Your task to perform on an android device: see tabs open on other devices in the chrome app Image 0: 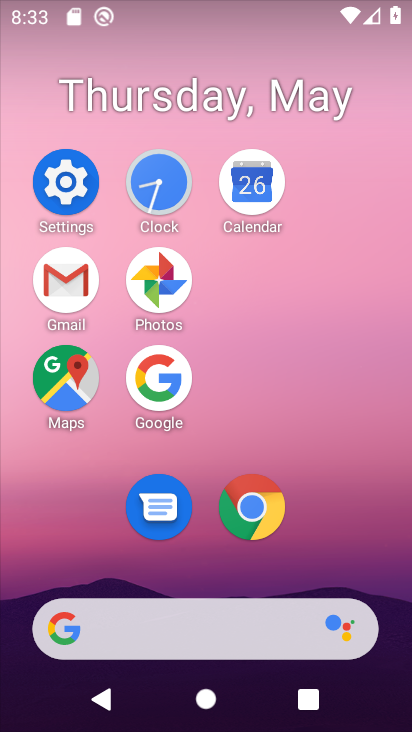
Step 0: click (268, 519)
Your task to perform on an android device: see tabs open on other devices in the chrome app Image 1: 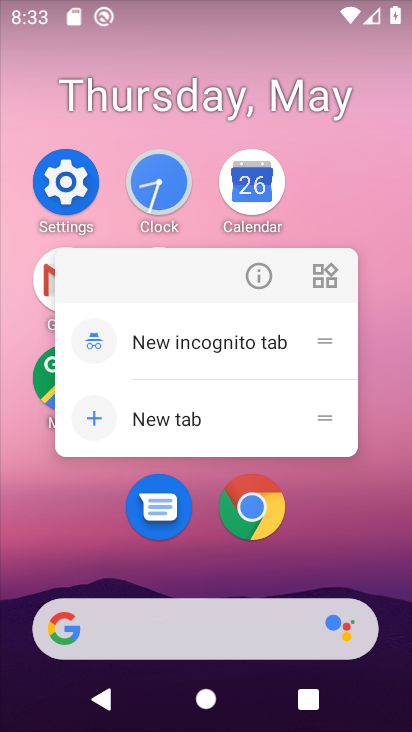
Step 1: click (266, 507)
Your task to perform on an android device: see tabs open on other devices in the chrome app Image 2: 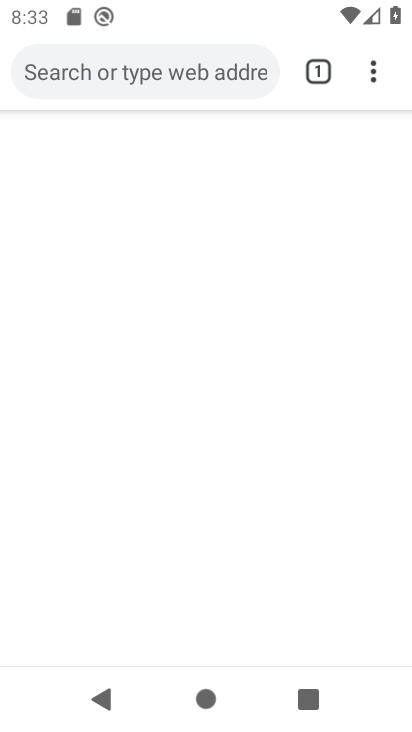
Step 2: click (382, 73)
Your task to perform on an android device: see tabs open on other devices in the chrome app Image 3: 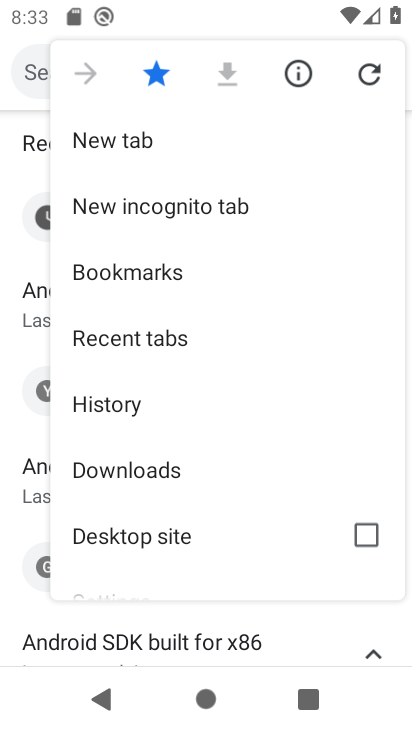
Step 3: click (148, 335)
Your task to perform on an android device: see tabs open on other devices in the chrome app Image 4: 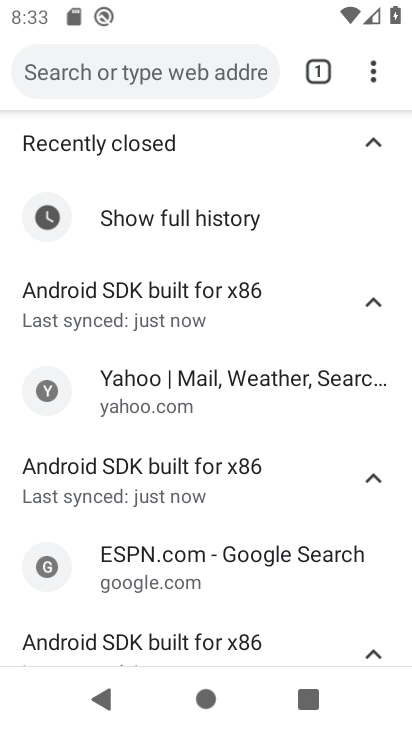
Step 4: task complete